Your task to perform on an android device: open app "Google News" (install if not already installed) Image 0: 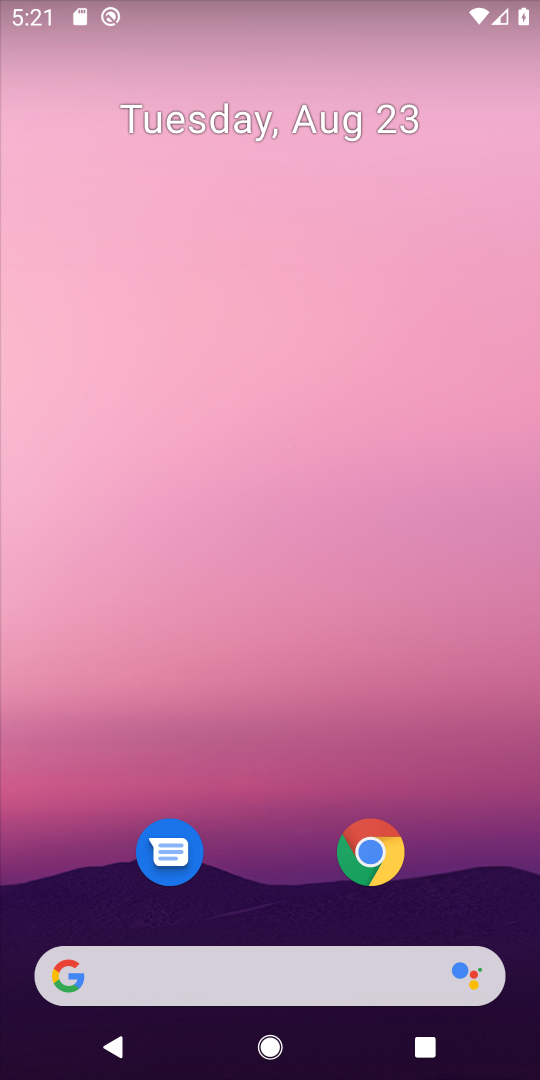
Step 0: drag from (244, 992) to (362, 118)
Your task to perform on an android device: open app "Google News" (install if not already installed) Image 1: 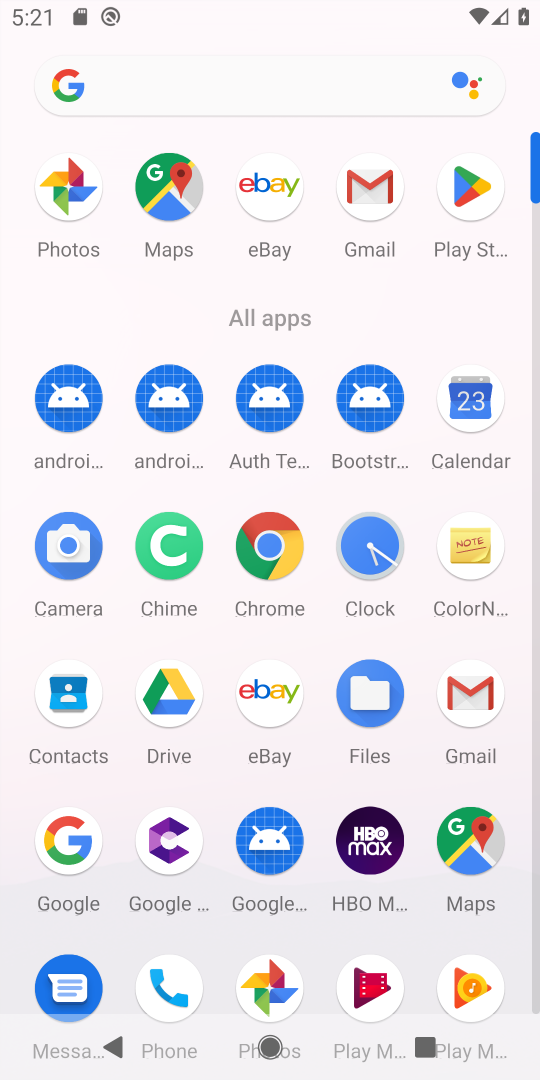
Step 1: click (469, 189)
Your task to perform on an android device: open app "Google News" (install if not already installed) Image 2: 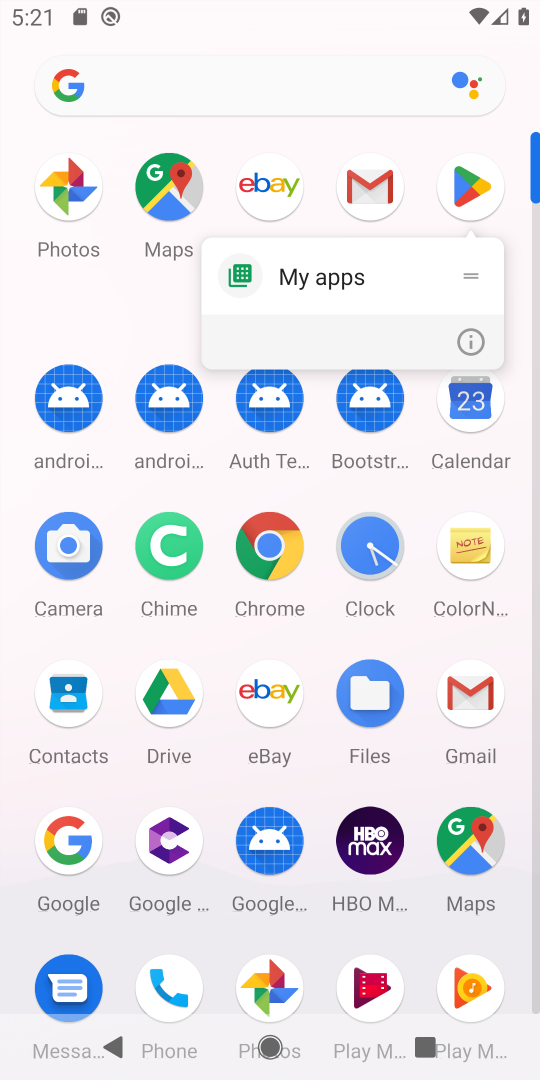
Step 2: click (469, 189)
Your task to perform on an android device: open app "Google News" (install if not already installed) Image 3: 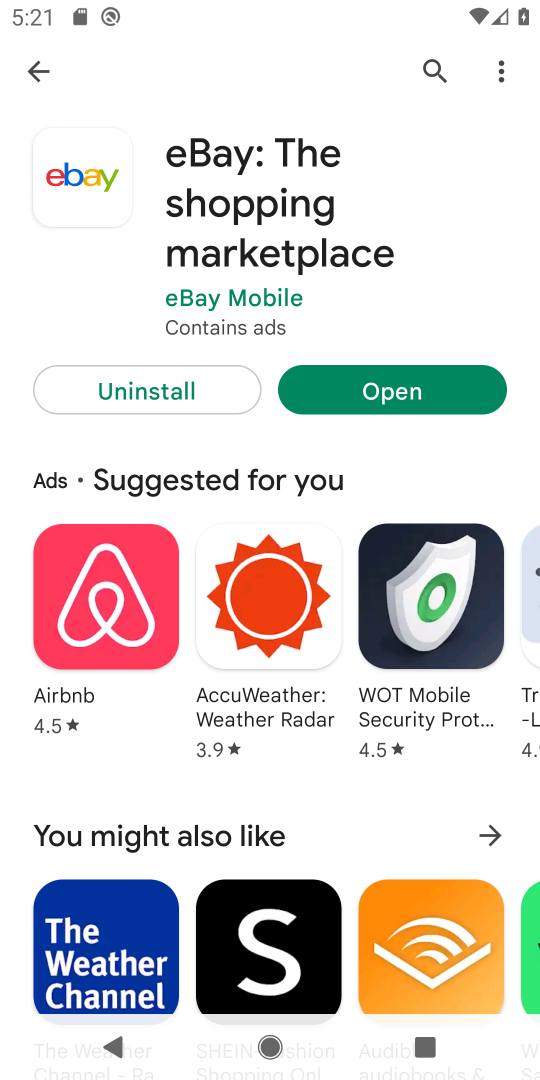
Step 3: press back button
Your task to perform on an android device: open app "Google News" (install if not already installed) Image 4: 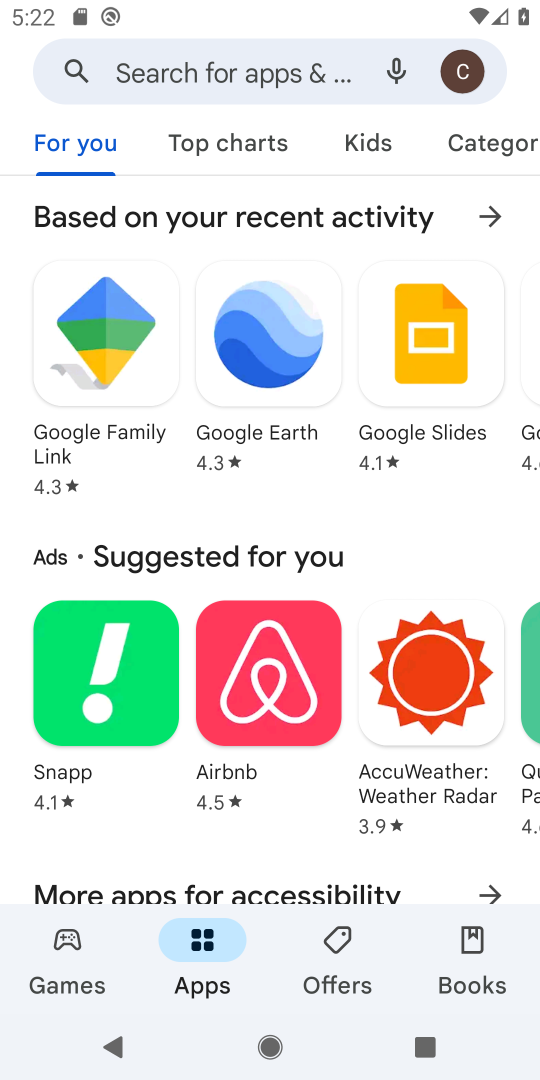
Step 4: click (168, 74)
Your task to perform on an android device: open app "Google News" (install if not already installed) Image 5: 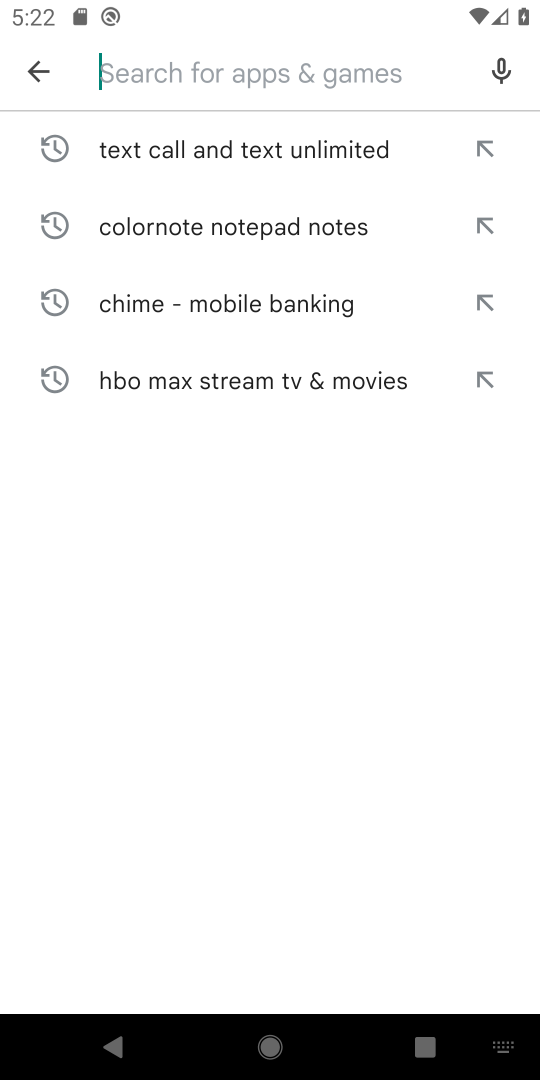
Step 5: type "Google News"
Your task to perform on an android device: open app "Google News" (install if not already installed) Image 6: 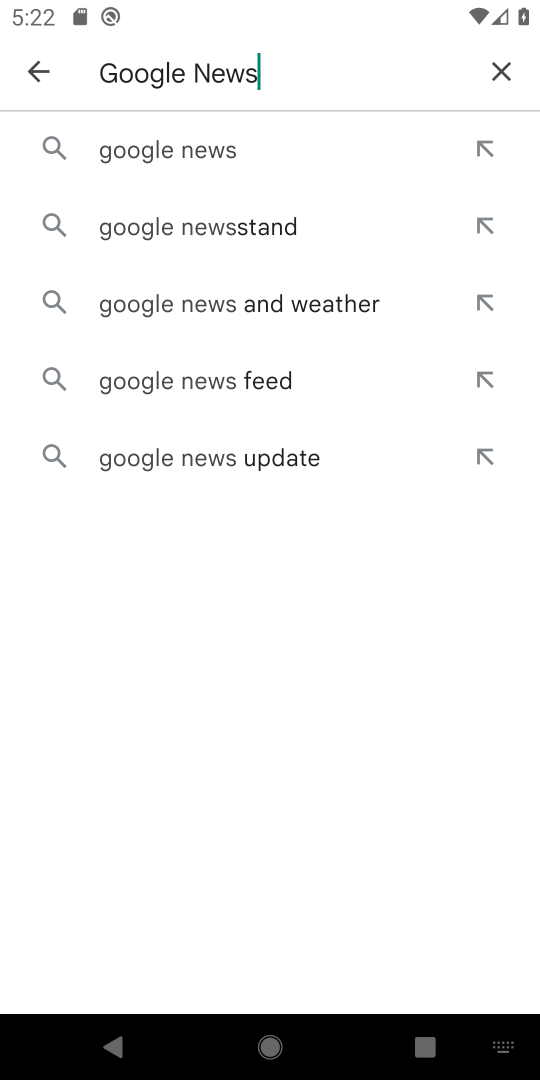
Step 6: click (201, 143)
Your task to perform on an android device: open app "Google News" (install if not already installed) Image 7: 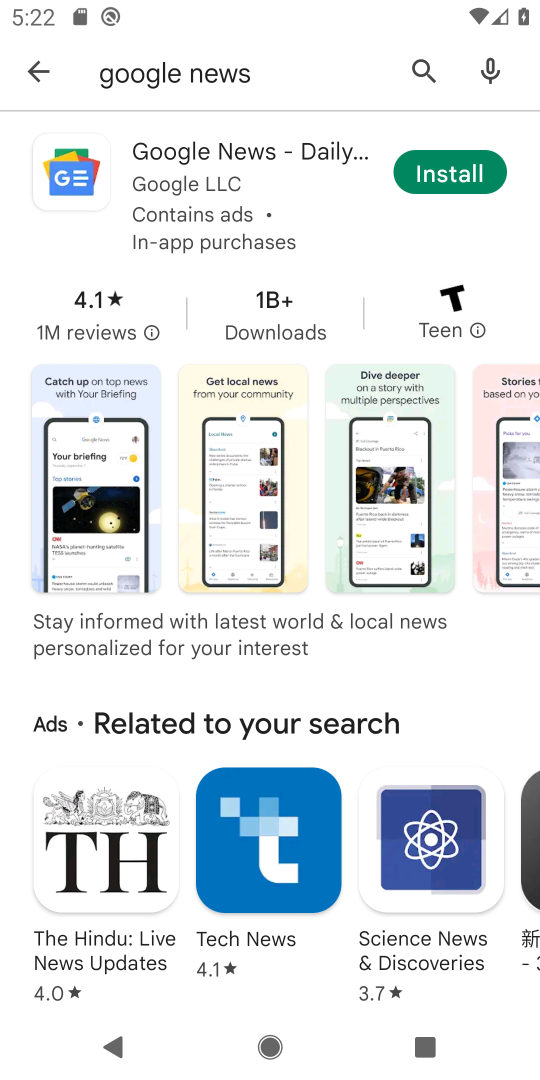
Step 7: click (460, 184)
Your task to perform on an android device: open app "Google News" (install if not already installed) Image 8: 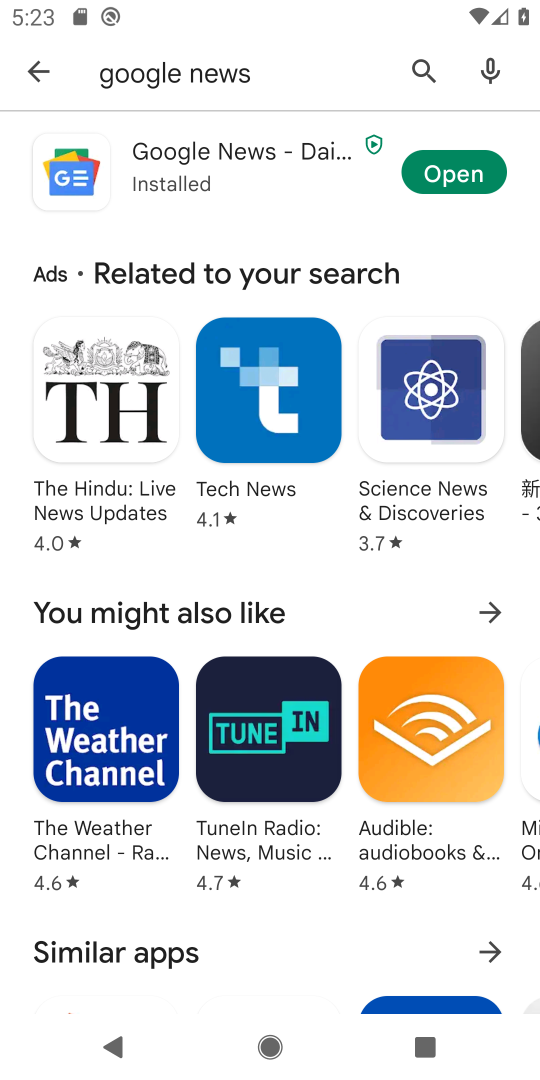
Step 8: click (460, 184)
Your task to perform on an android device: open app "Google News" (install if not already installed) Image 9: 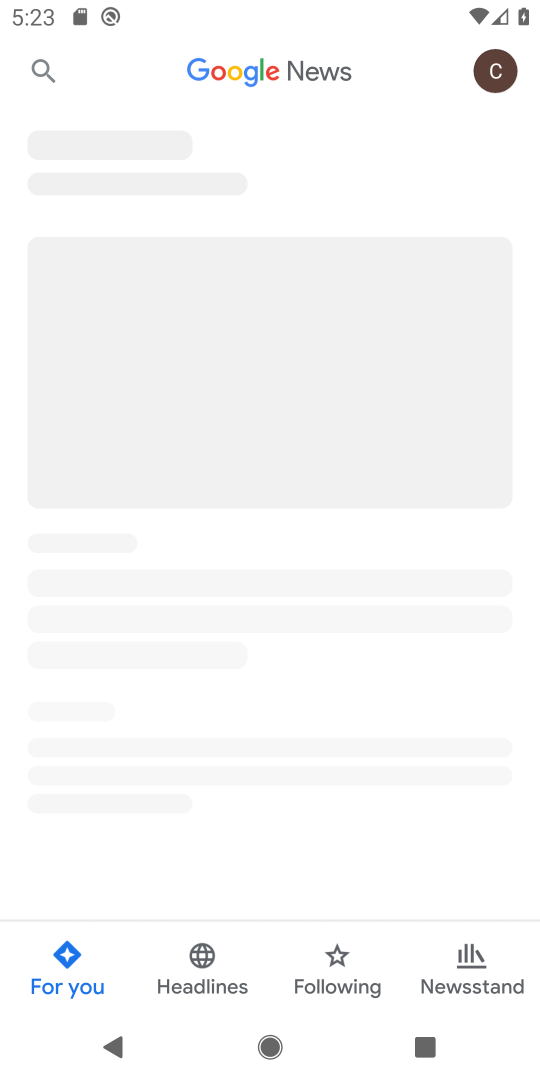
Step 9: task complete